Your task to perform on an android device: find photos in the google photos app Image 0: 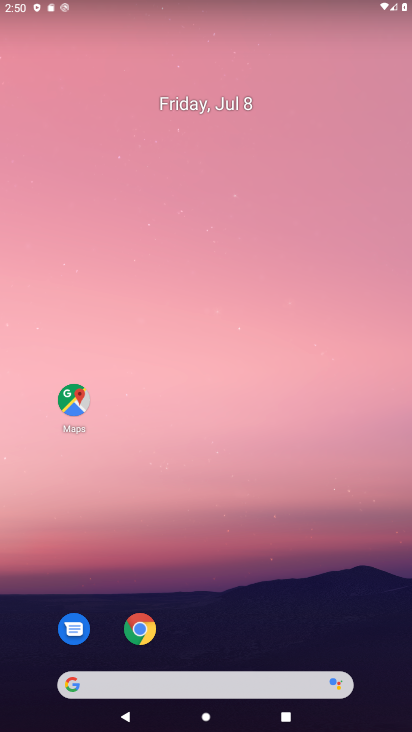
Step 0: drag from (53, 696) to (311, 89)
Your task to perform on an android device: find photos in the google photos app Image 1: 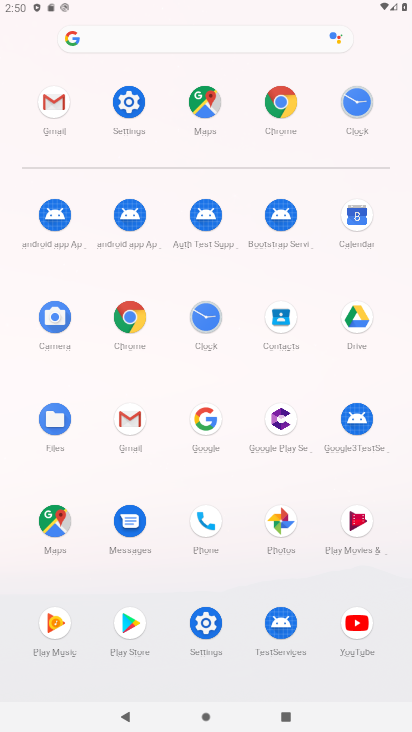
Step 1: click (289, 537)
Your task to perform on an android device: find photos in the google photos app Image 2: 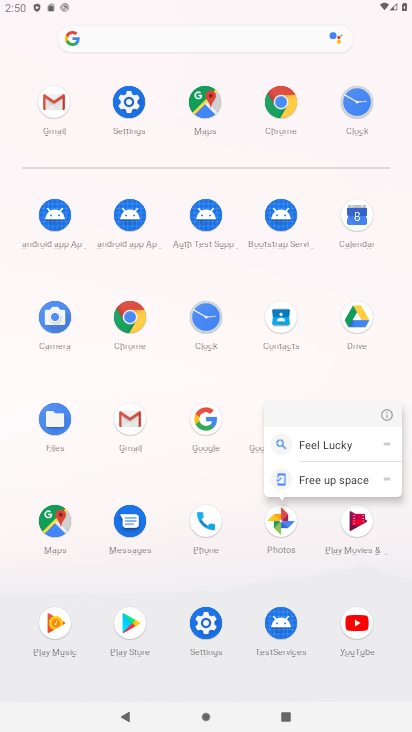
Step 2: click (277, 530)
Your task to perform on an android device: find photos in the google photos app Image 3: 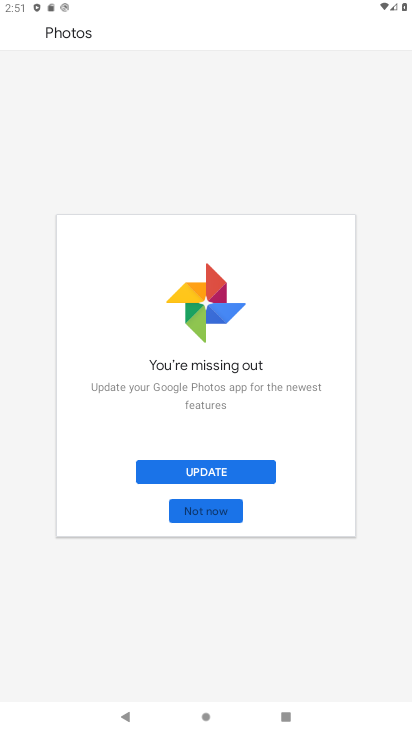
Step 3: click (194, 514)
Your task to perform on an android device: find photos in the google photos app Image 4: 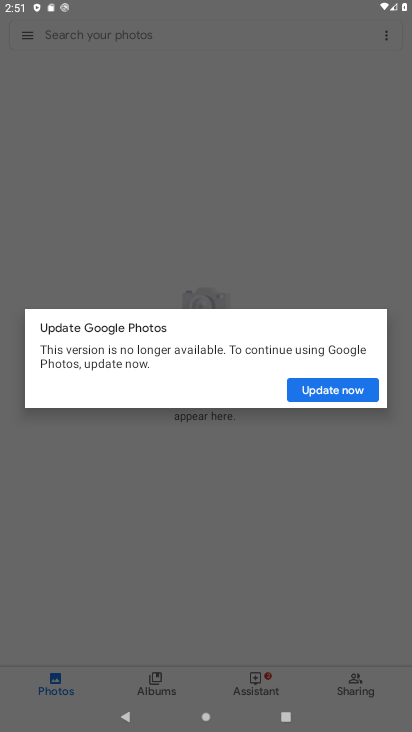
Step 4: click (319, 387)
Your task to perform on an android device: find photos in the google photos app Image 5: 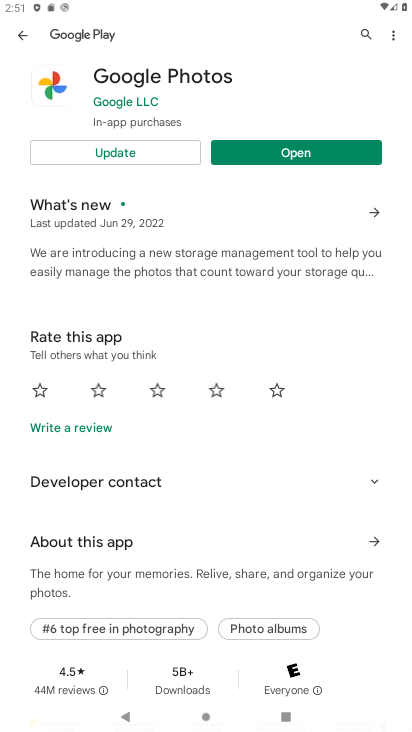
Step 5: click (297, 144)
Your task to perform on an android device: find photos in the google photos app Image 6: 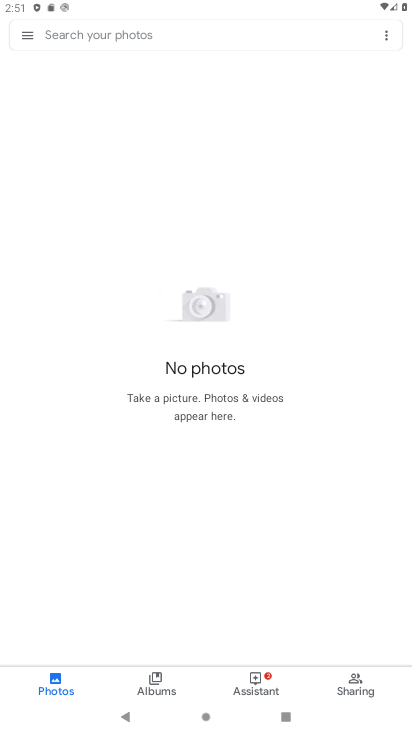
Step 6: task complete